Your task to perform on an android device: Search for "amazon basics triple a" on ebay, select the first entry, add it to the cart, then select checkout. Image 0: 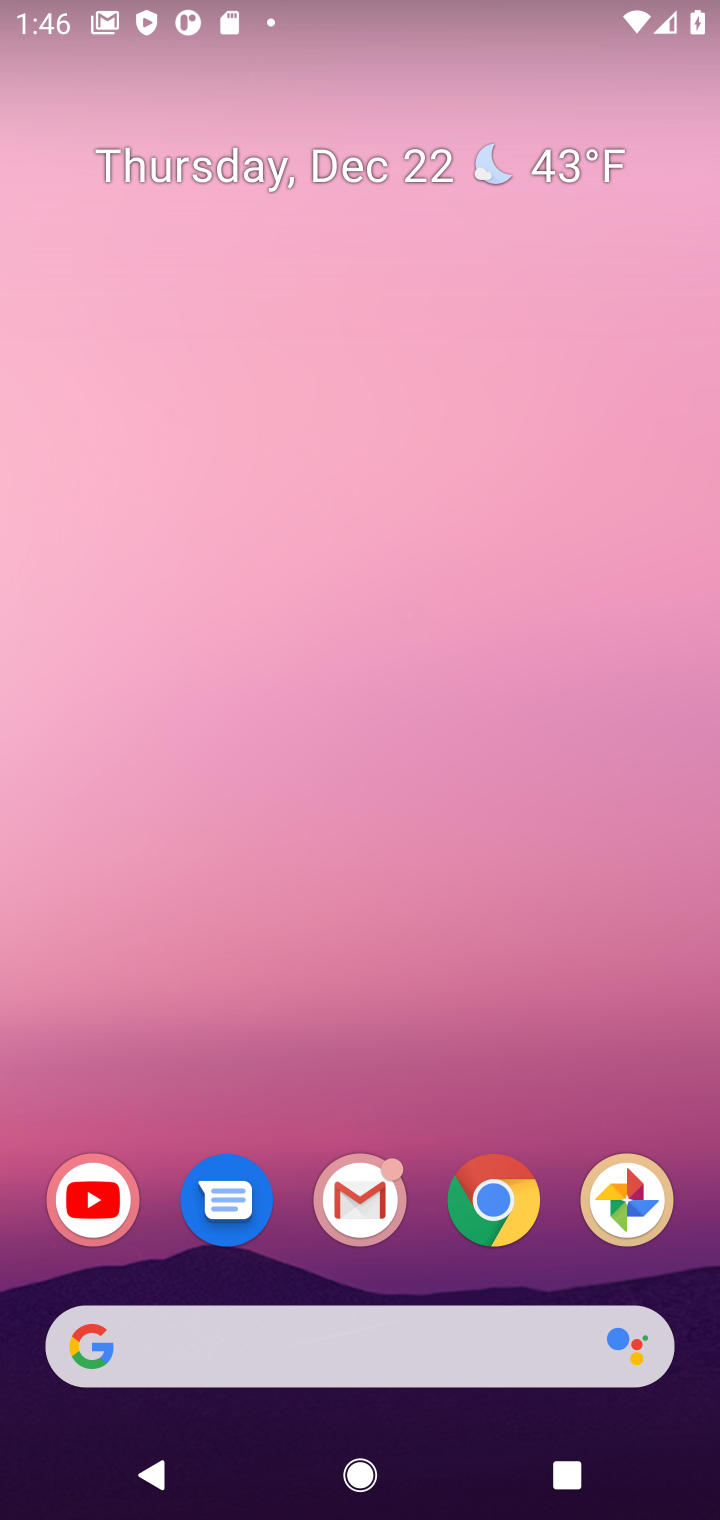
Step 0: click (488, 1206)
Your task to perform on an android device: Search for "amazon basics triple a" on ebay, select the first entry, add it to the cart, then select checkout. Image 1: 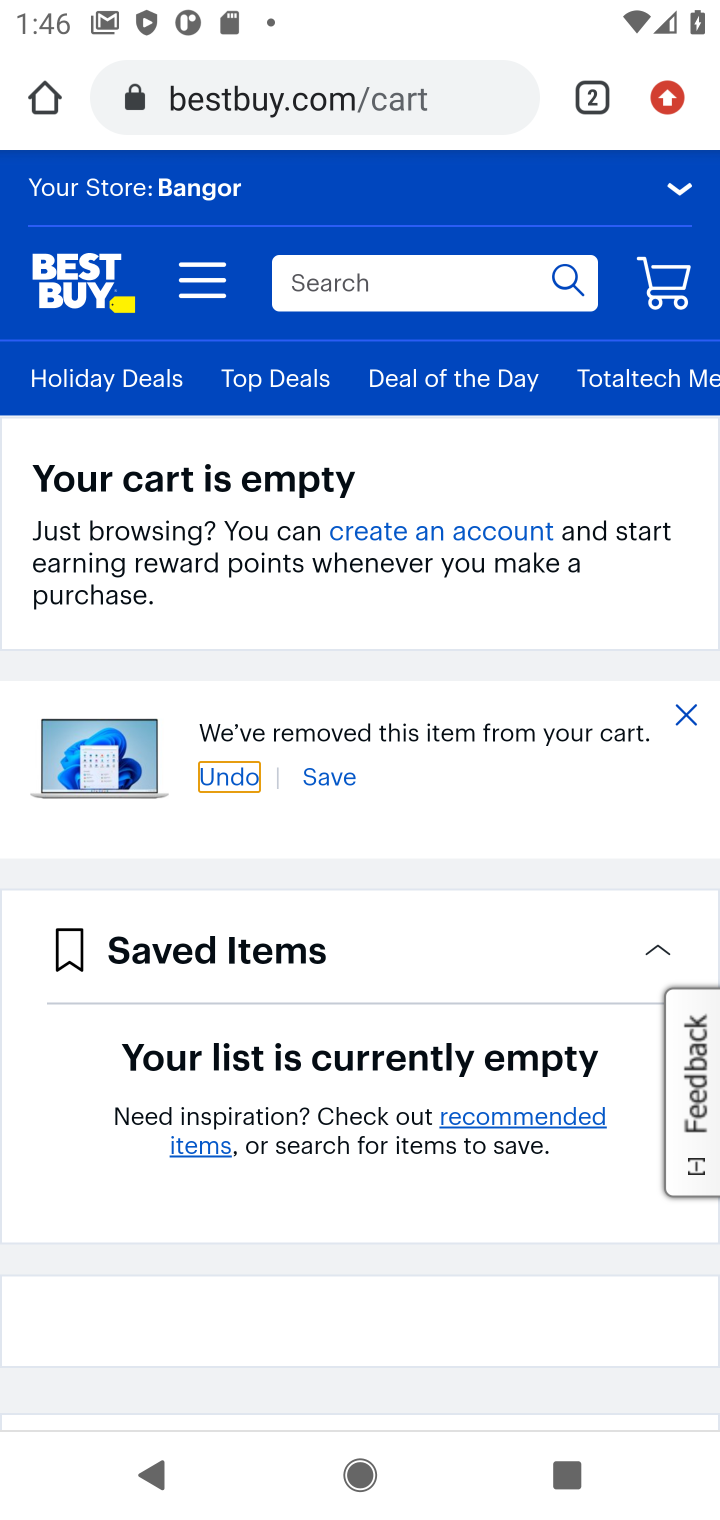
Step 1: click (222, 100)
Your task to perform on an android device: Search for "amazon basics triple a" on ebay, select the first entry, add it to the cart, then select checkout. Image 2: 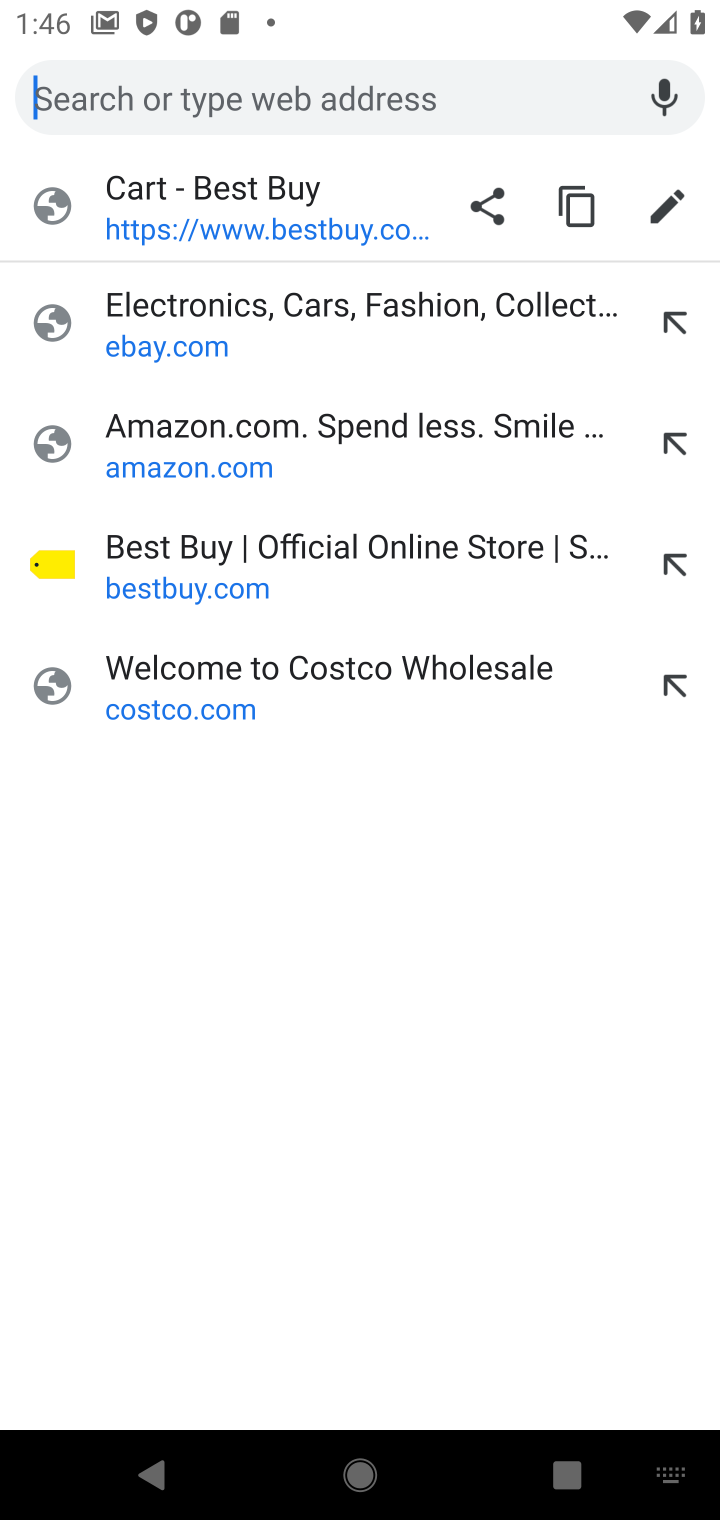
Step 2: click (142, 364)
Your task to perform on an android device: Search for "amazon basics triple a" on ebay, select the first entry, add it to the cart, then select checkout. Image 3: 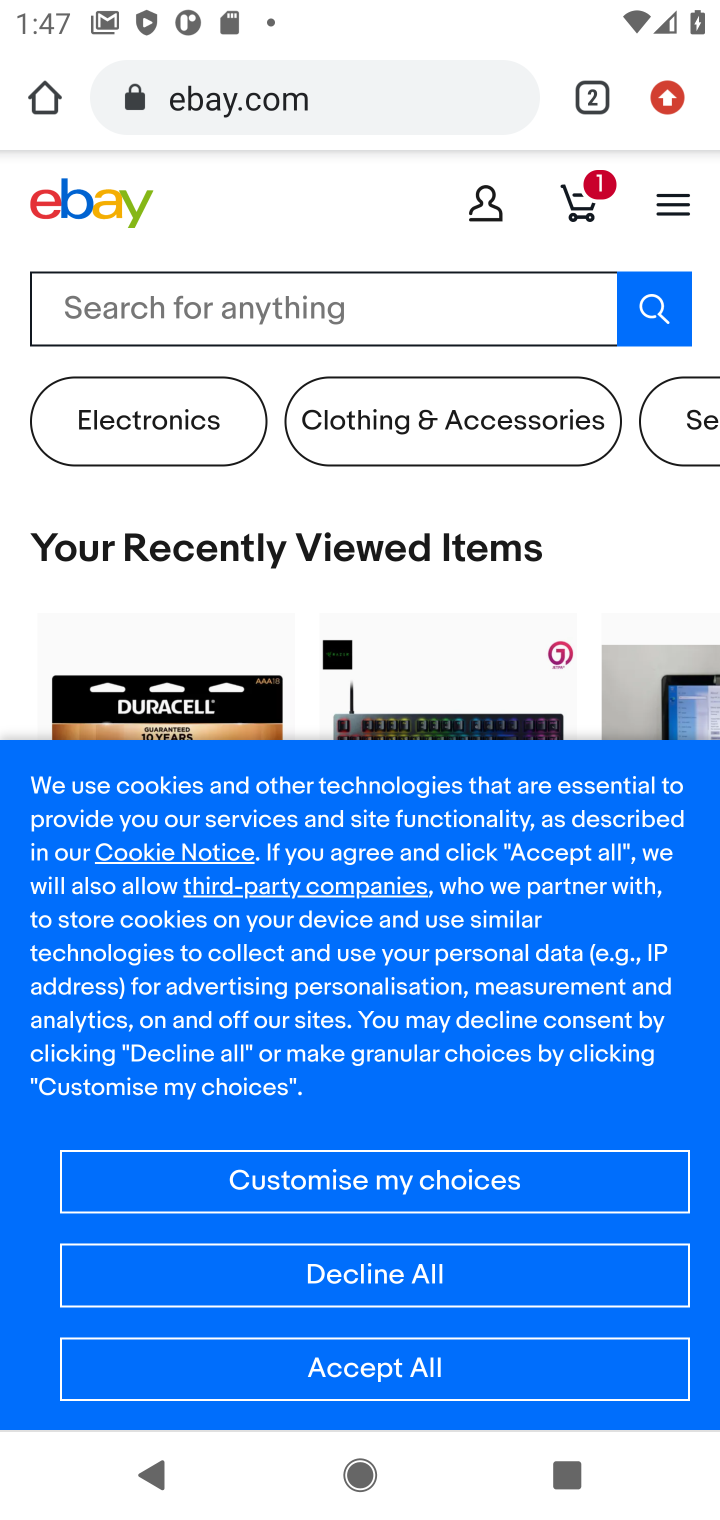
Step 3: click (58, 305)
Your task to perform on an android device: Search for "amazon basics triple a" on ebay, select the first entry, add it to the cart, then select checkout. Image 4: 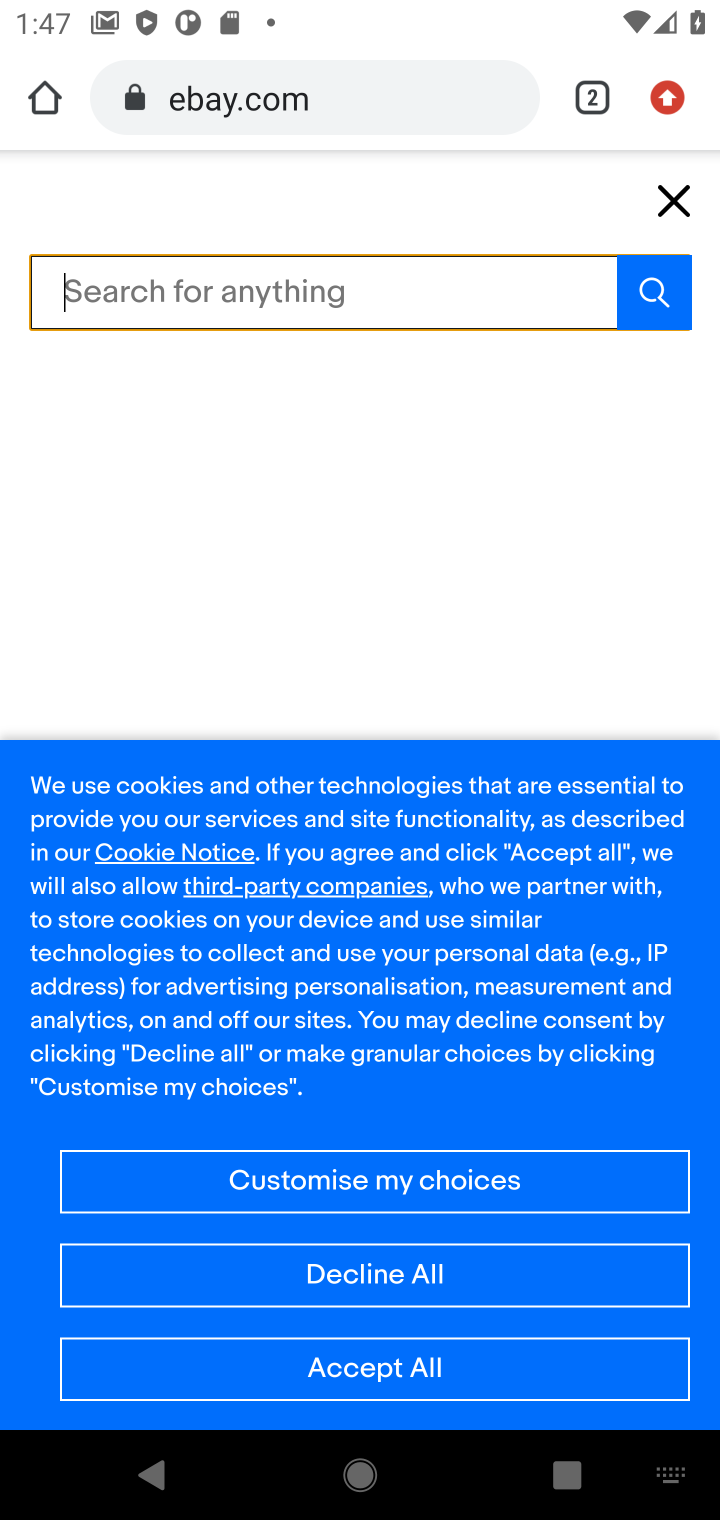
Step 4: type "amazon basics triple a"
Your task to perform on an android device: Search for "amazon basics triple a" on ebay, select the first entry, add it to the cart, then select checkout. Image 5: 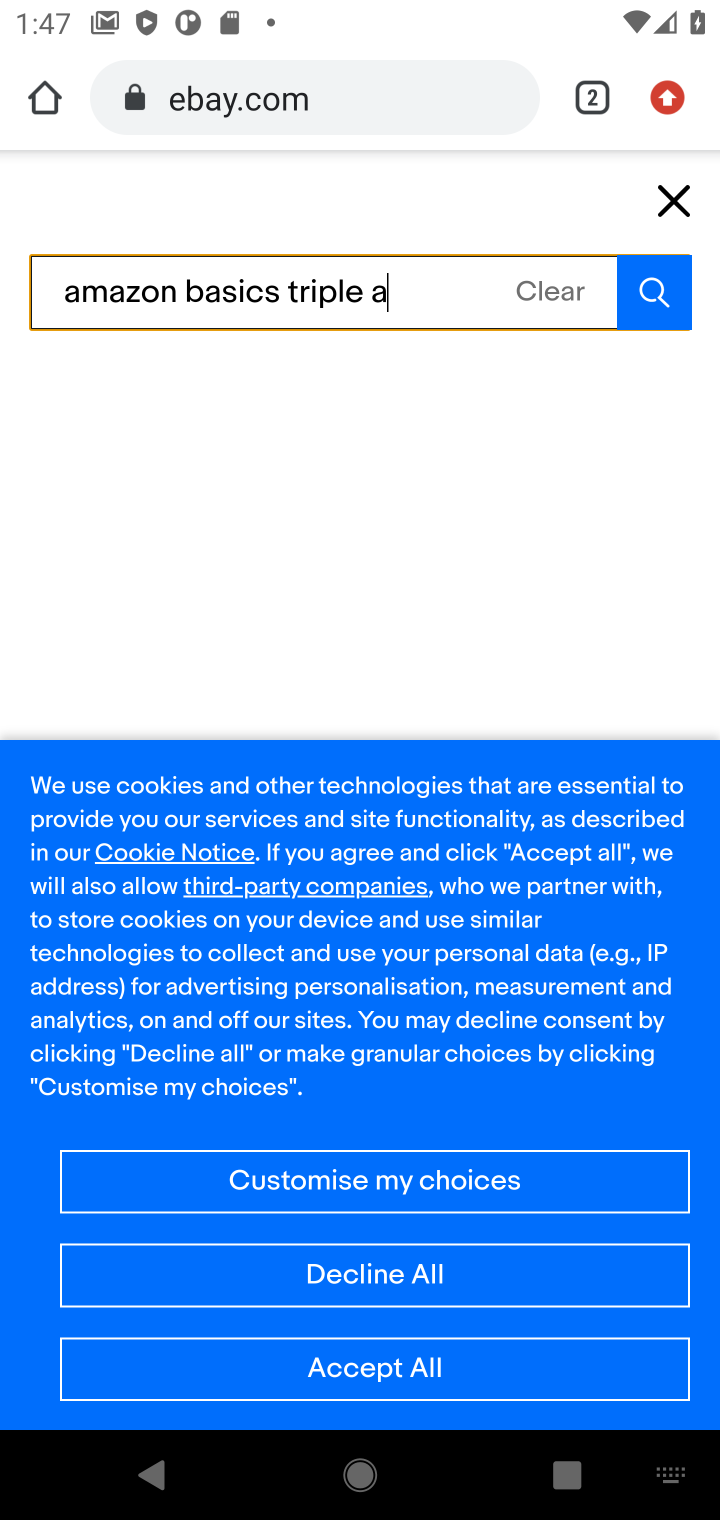
Step 5: click (646, 273)
Your task to perform on an android device: Search for "amazon basics triple a" on ebay, select the first entry, add it to the cart, then select checkout. Image 6: 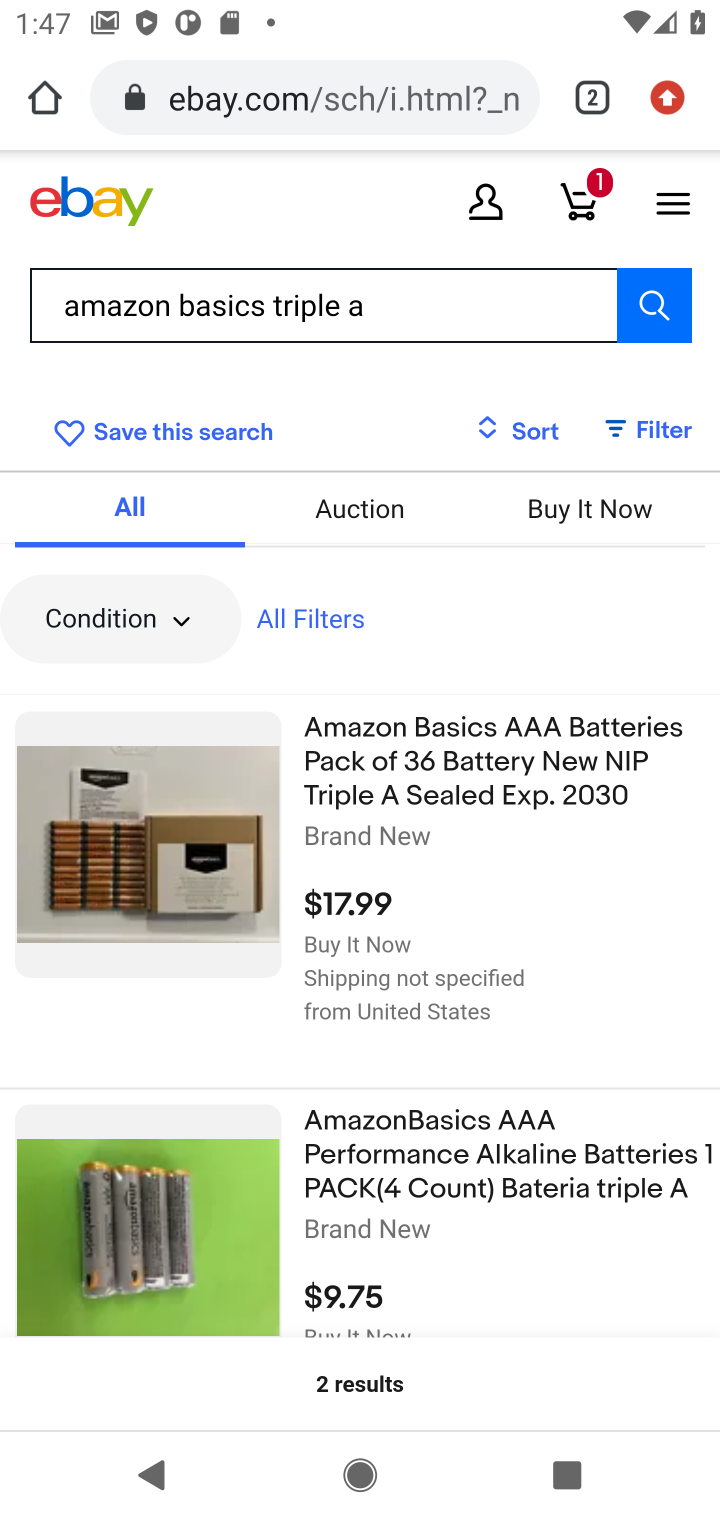
Step 6: click (350, 780)
Your task to perform on an android device: Search for "amazon basics triple a" on ebay, select the first entry, add it to the cart, then select checkout. Image 7: 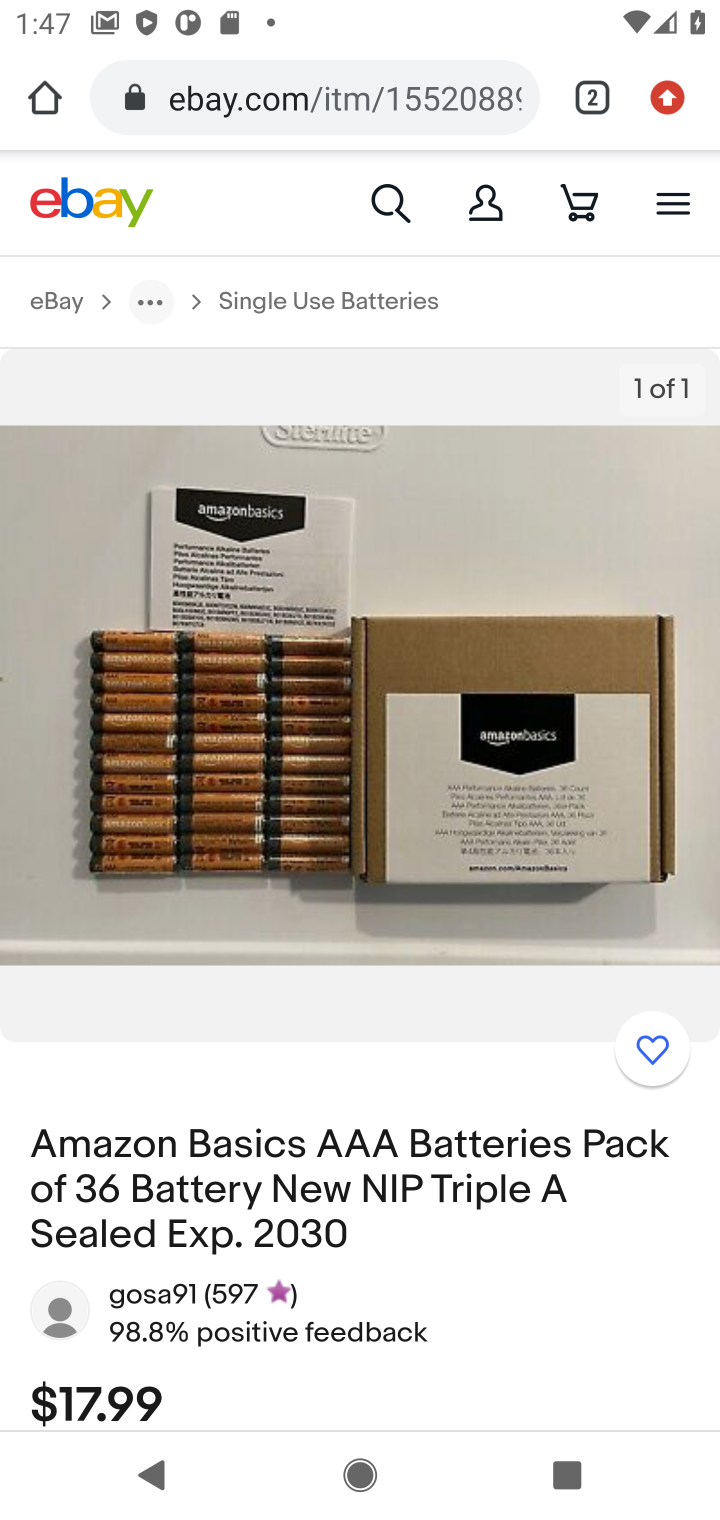
Step 7: drag from (310, 1131) to (340, 484)
Your task to perform on an android device: Search for "amazon basics triple a" on ebay, select the first entry, add it to the cart, then select checkout. Image 8: 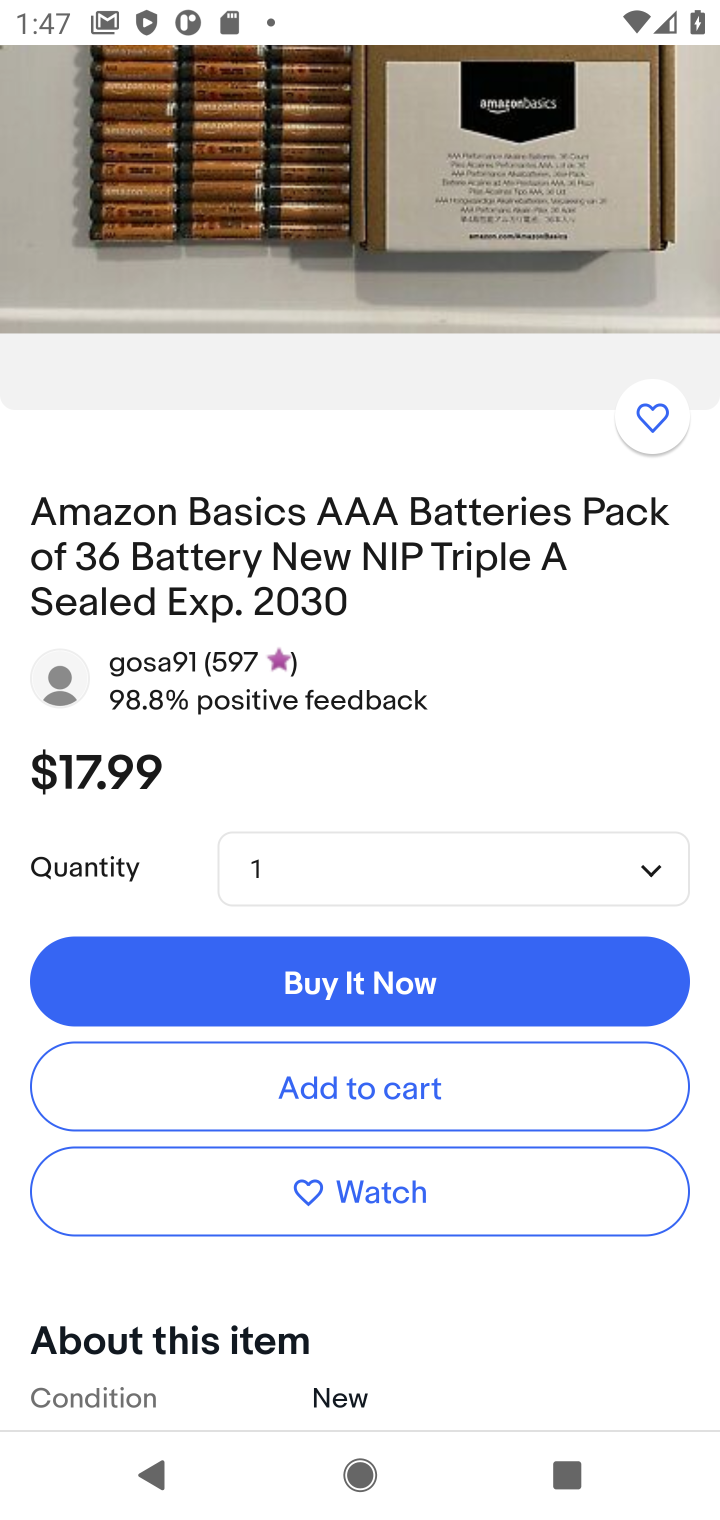
Step 8: click (329, 1077)
Your task to perform on an android device: Search for "amazon basics triple a" on ebay, select the first entry, add it to the cart, then select checkout. Image 9: 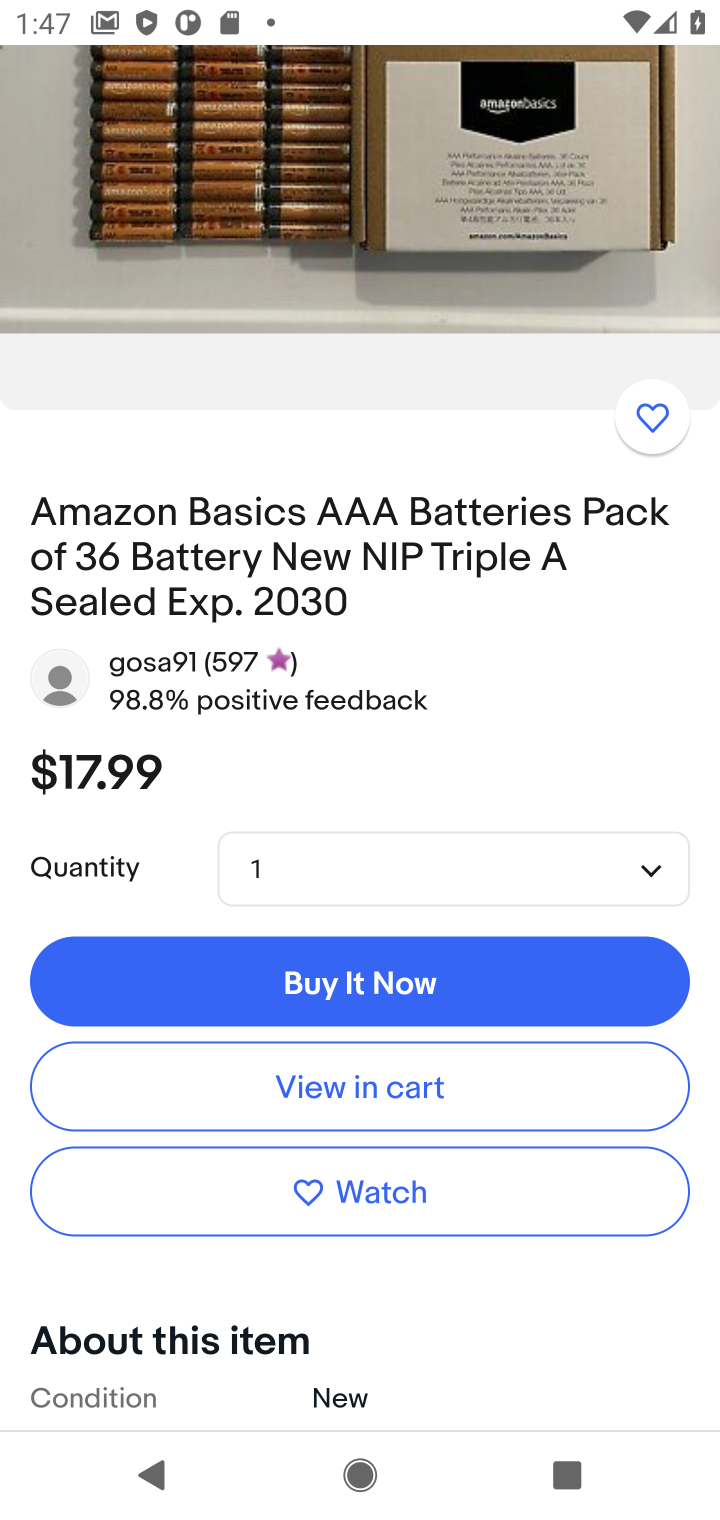
Step 9: click (329, 1098)
Your task to perform on an android device: Search for "amazon basics triple a" on ebay, select the first entry, add it to the cart, then select checkout. Image 10: 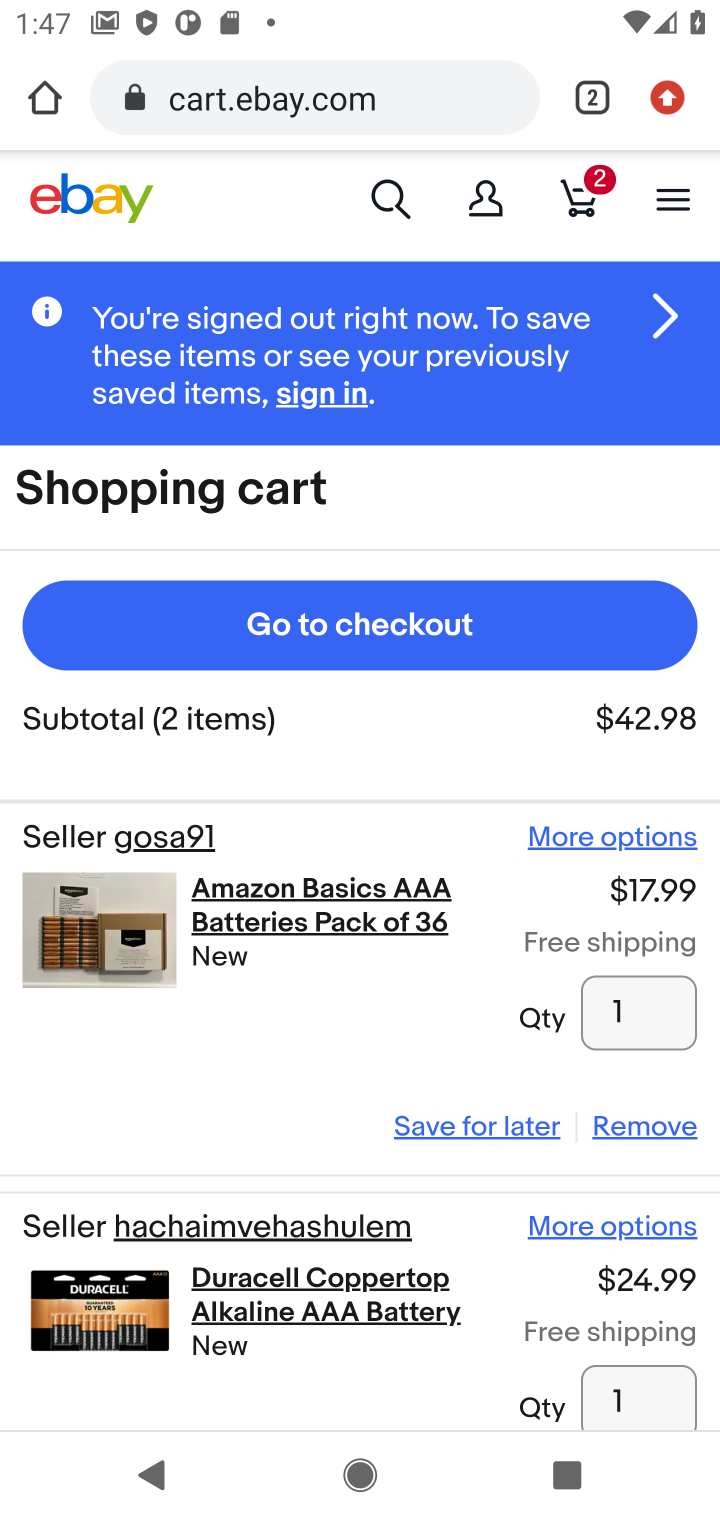
Step 10: click (337, 643)
Your task to perform on an android device: Search for "amazon basics triple a" on ebay, select the first entry, add it to the cart, then select checkout. Image 11: 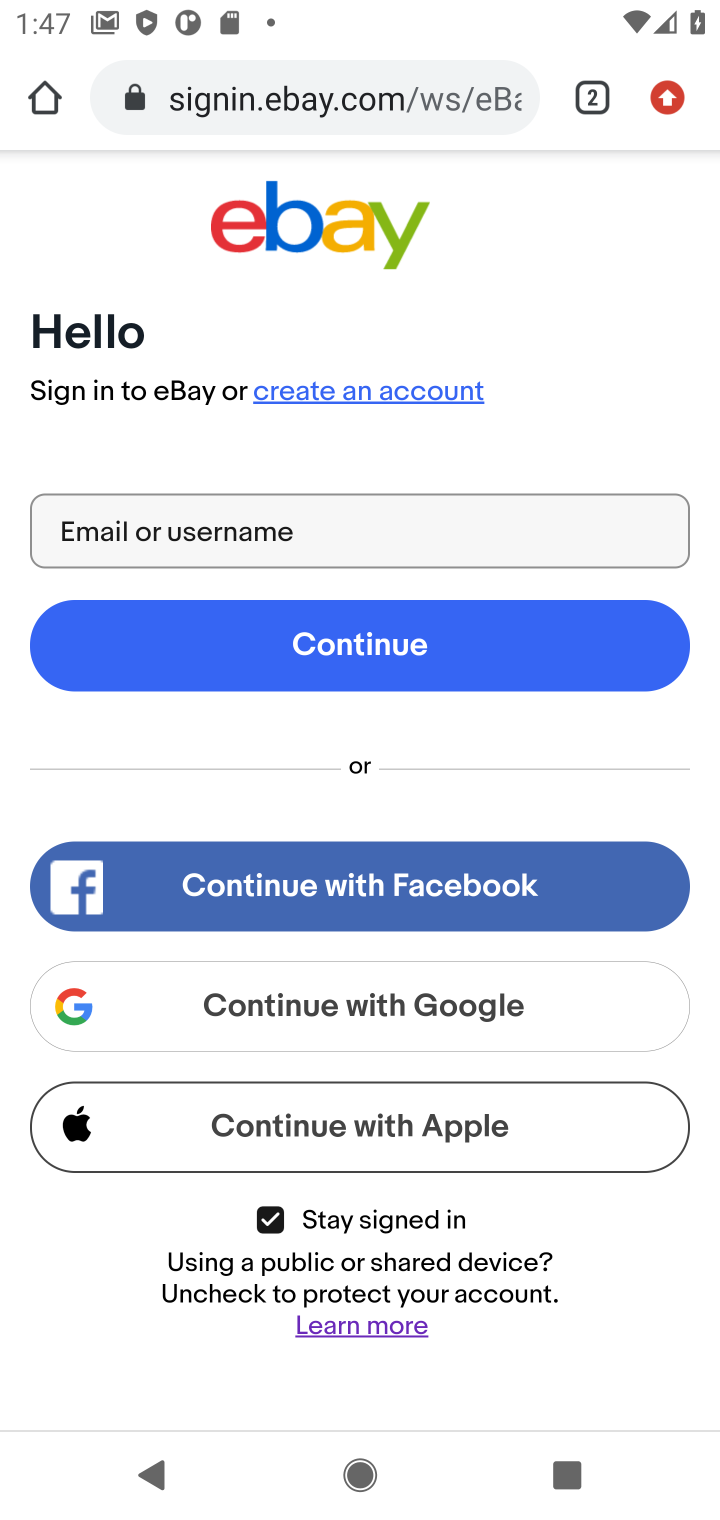
Step 11: task complete